Your task to perform on an android device: Go to network settings Image 0: 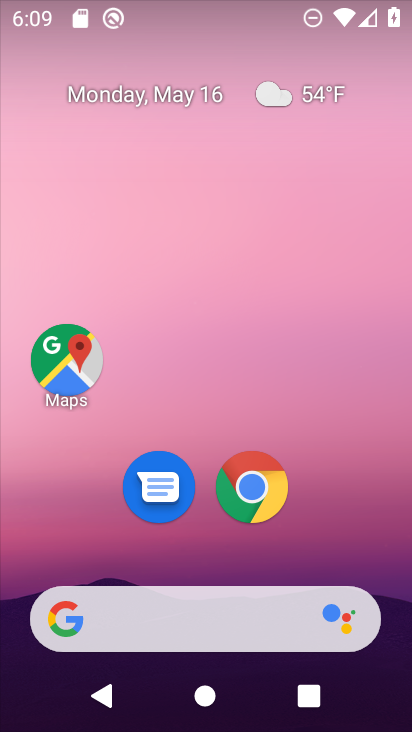
Step 0: drag from (211, 591) to (277, 227)
Your task to perform on an android device: Go to network settings Image 1: 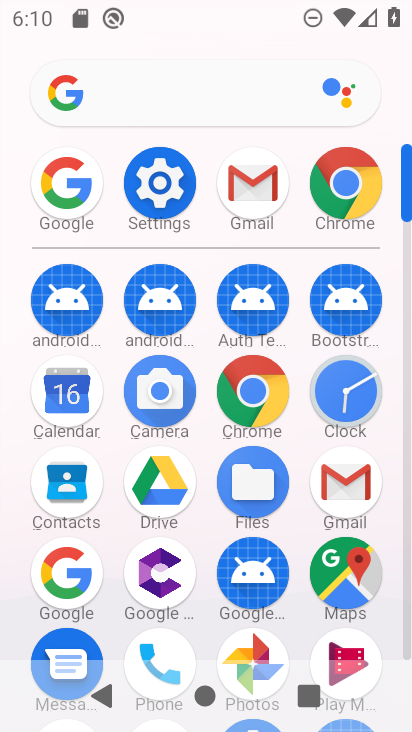
Step 1: click (151, 192)
Your task to perform on an android device: Go to network settings Image 2: 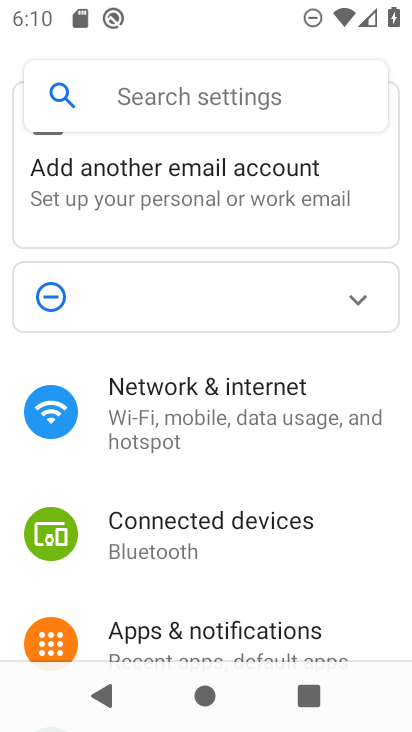
Step 2: click (177, 405)
Your task to perform on an android device: Go to network settings Image 3: 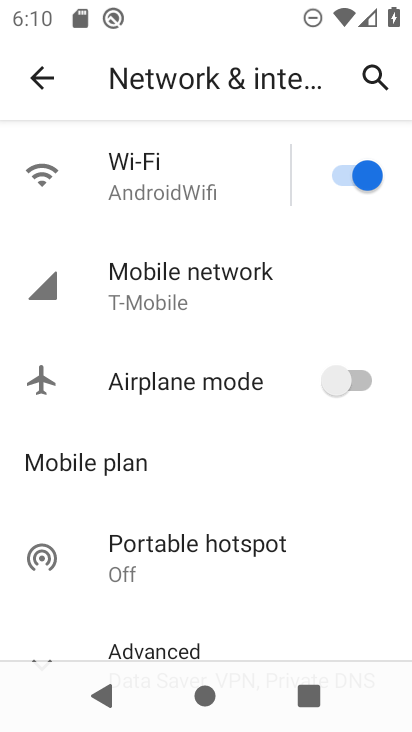
Step 3: click (216, 294)
Your task to perform on an android device: Go to network settings Image 4: 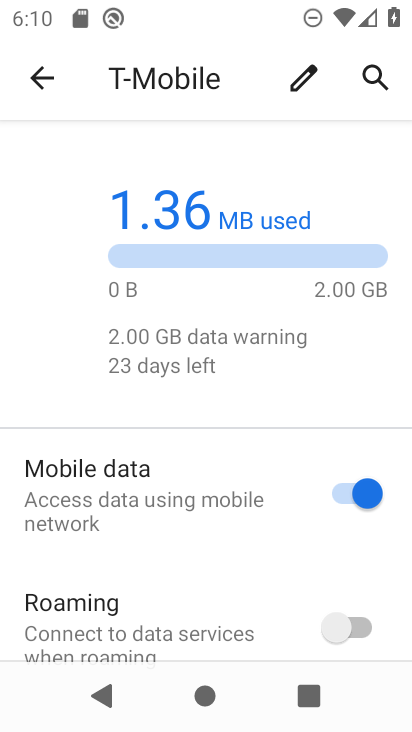
Step 4: task complete